Your task to perform on an android device: turn on the 12-hour format for clock Image 0: 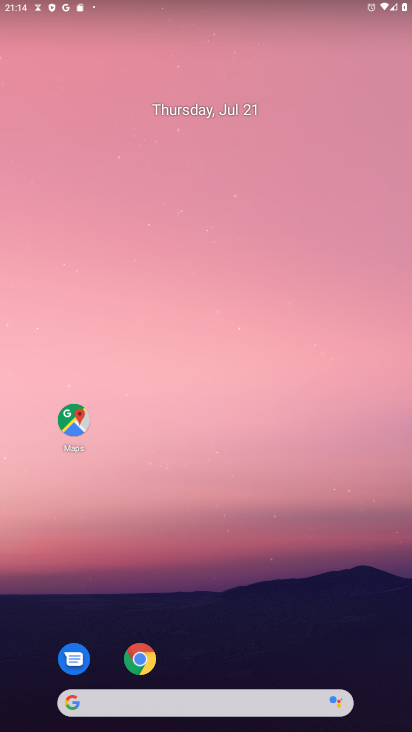
Step 0: drag from (262, 675) to (264, 45)
Your task to perform on an android device: turn on the 12-hour format for clock Image 1: 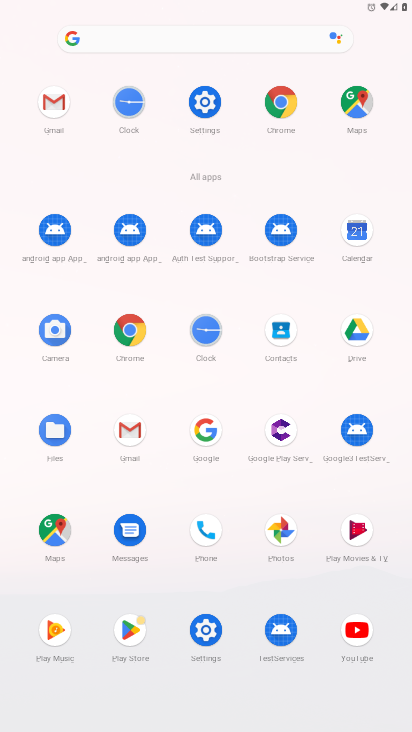
Step 1: click (196, 324)
Your task to perform on an android device: turn on the 12-hour format for clock Image 2: 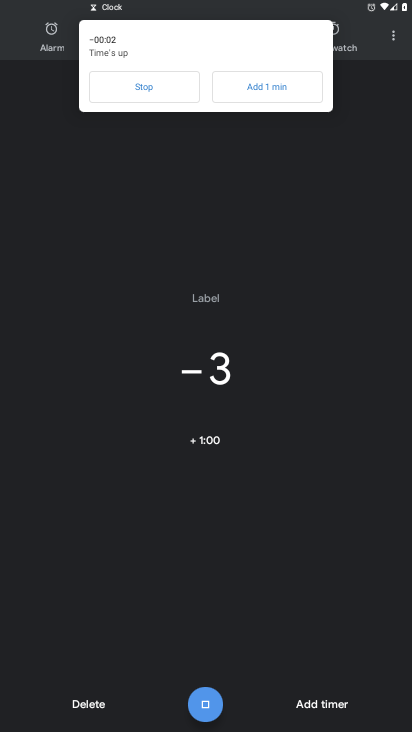
Step 2: click (126, 97)
Your task to perform on an android device: turn on the 12-hour format for clock Image 3: 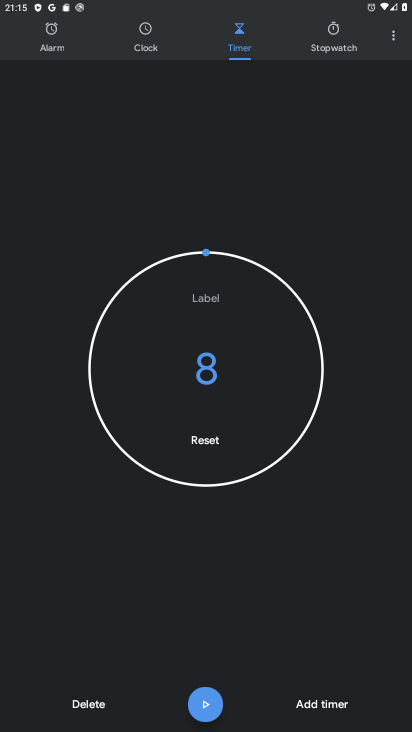
Step 3: click (394, 37)
Your task to perform on an android device: turn on the 12-hour format for clock Image 4: 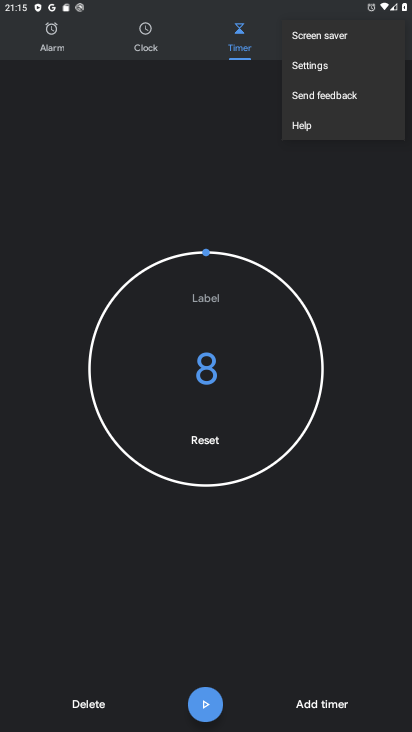
Step 4: click (309, 67)
Your task to perform on an android device: turn on the 12-hour format for clock Image 5: 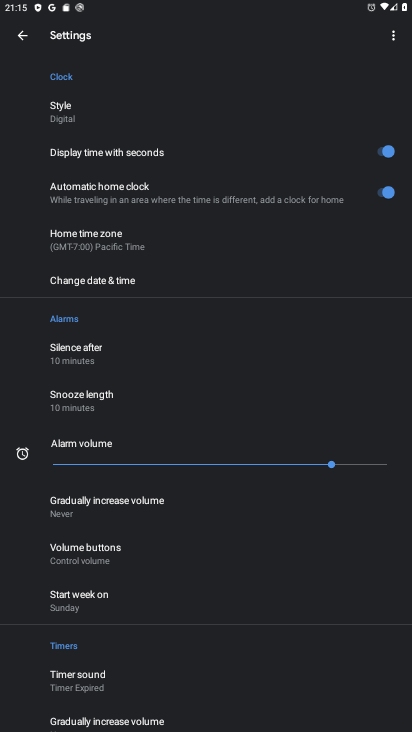
Step 5: click (129, 283)
Your task to perform on an android device: turn on the 12-hour format for clock Image 6: 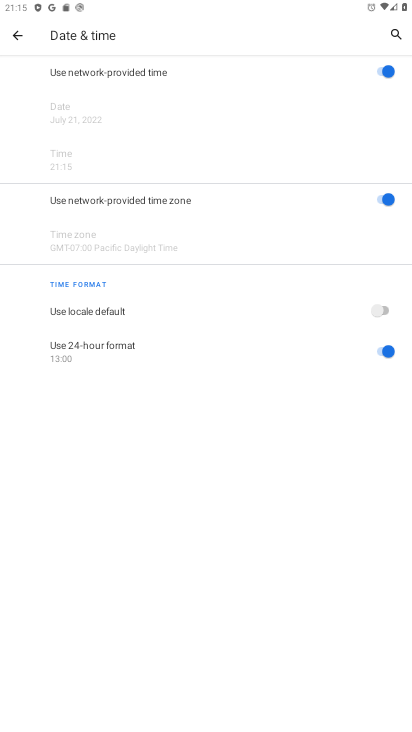
Step 6: task complete